Your task to perform on an android device: toggle priority inbox in the gmail app Image 0: 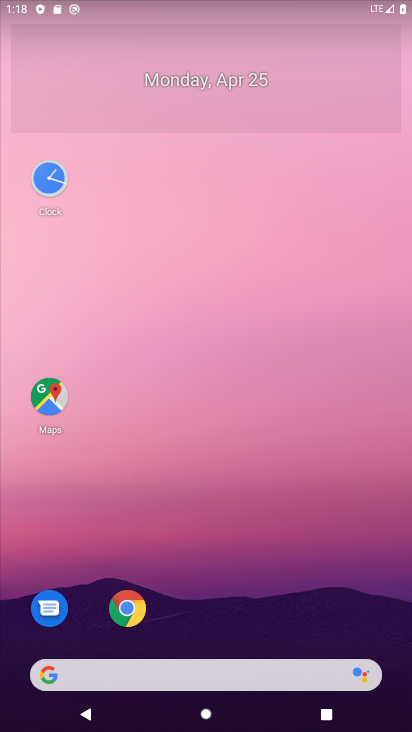
Step 0: drag from (205, 635) to (270, 119)
Your task to perform on an android device: toggle priority inbox in the gmail app Image 1: 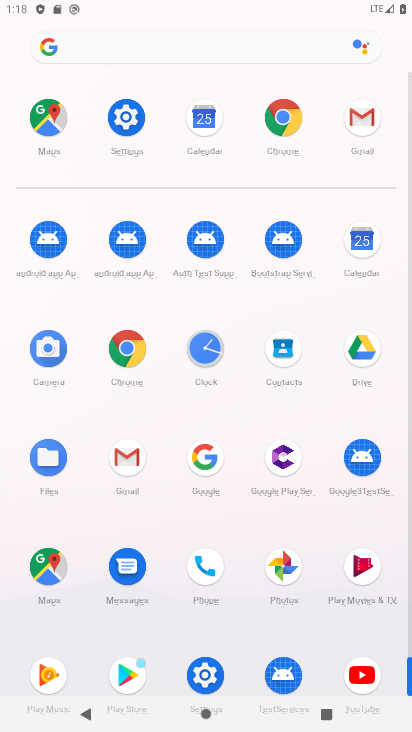
Step 1: drag from (353, 116) to (123, 162)
Your task to perform on an android device: toggle priority inbox in the gmail app Image 2: 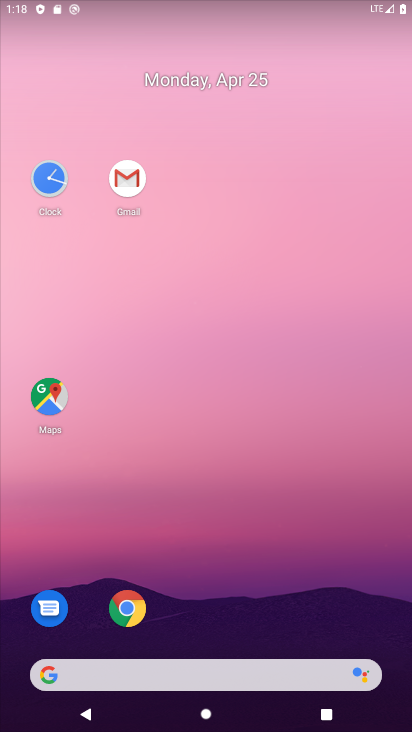
Step 2: click (137, 178)
Your task to perform on an android device: toggle priority inbox in the gmail app Image 3: 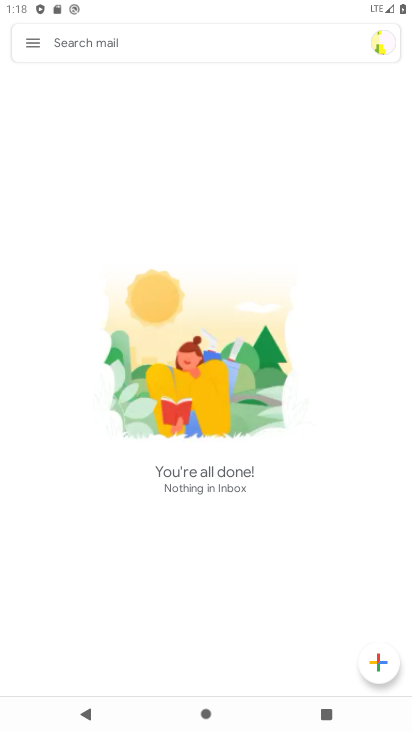
Step 3: click (24, 37)
Your task to perform on an android device: toggle priority inbox in the gmail app Image 4: 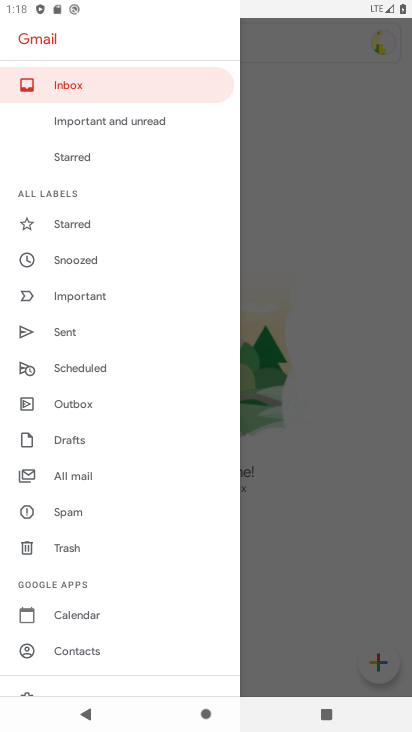
Step 4: drag from (144, 584) to (116, 282)
Your task to perform on an android device: toggle priority inbox in the gmail app Image 5: 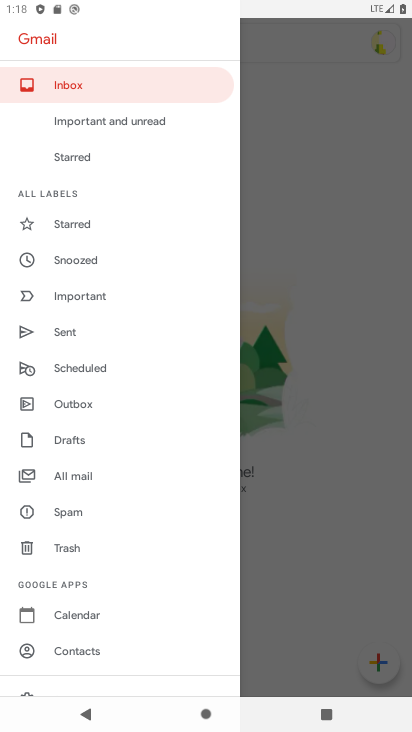
Step 5: drag from (103, 603) to (20, 322)
Your task to perform on an android device: toggle priority inbox in the gmail app Image 6: 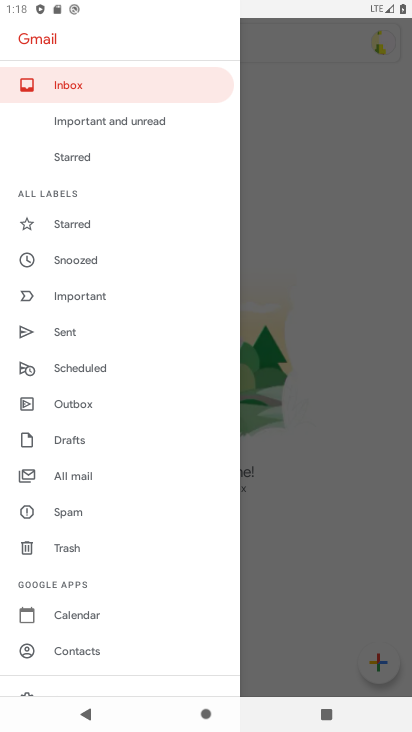
Step 6: drag from (63, 597) to (94, 258)
Your task to perform on an android device: toggle priority inbox in the gmail app Image 7: 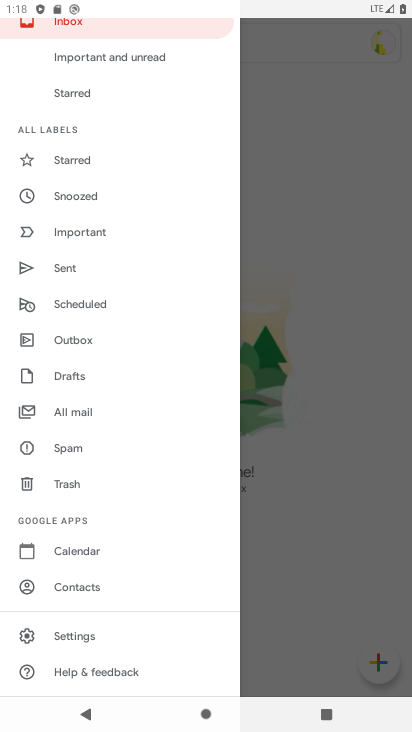
Step 7: click (73, 627)
Your task to perform on an android device: toggle priority inbox in the gmail app Image 8: 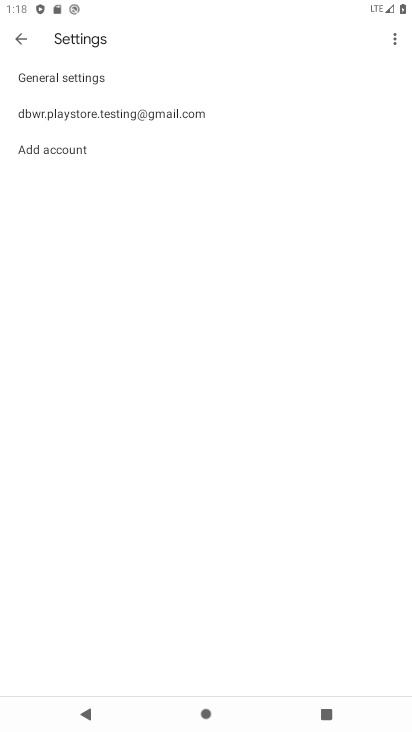
Step 8: click (148, 106)
Your task to perform on an android device: toggle priority inbox in the gmail app Image 9: 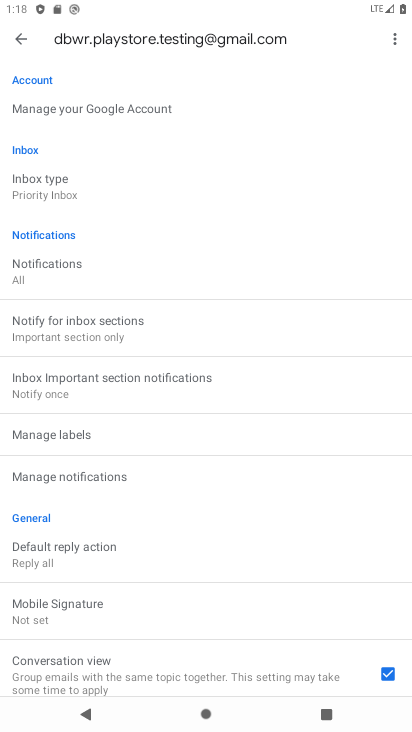
Step 9: click (164, 182)
Your task to perform on an android device: toggle priority inbox in the gmail app Image 10: 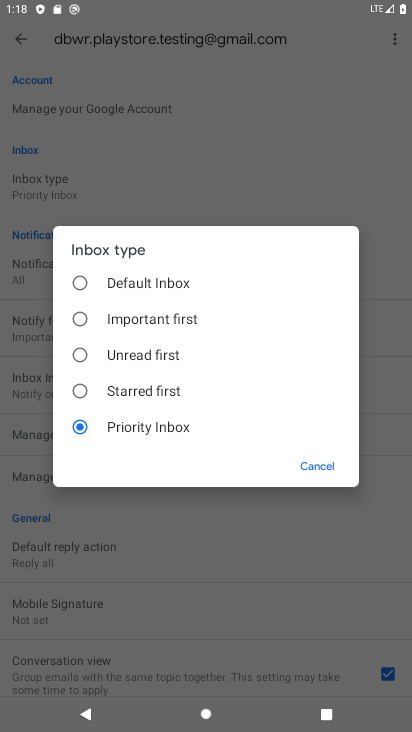
Step 10: click (144, 273)
Your task to perform on an android device: toggle priority inbox in the gmail app Image 11: 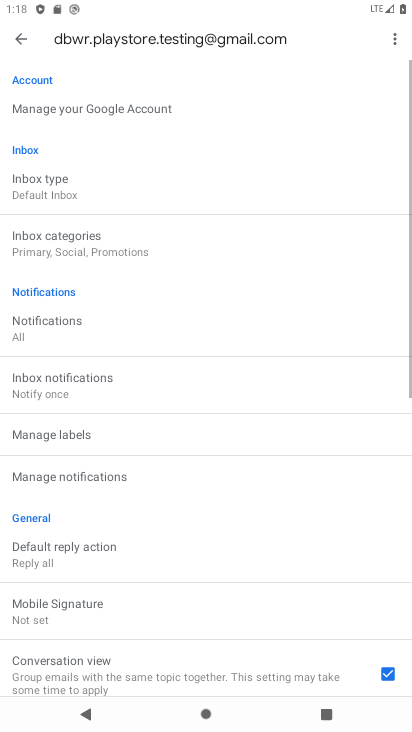
Step 11: task complete